Your task to perform on an android device: Open network settings Image 0: 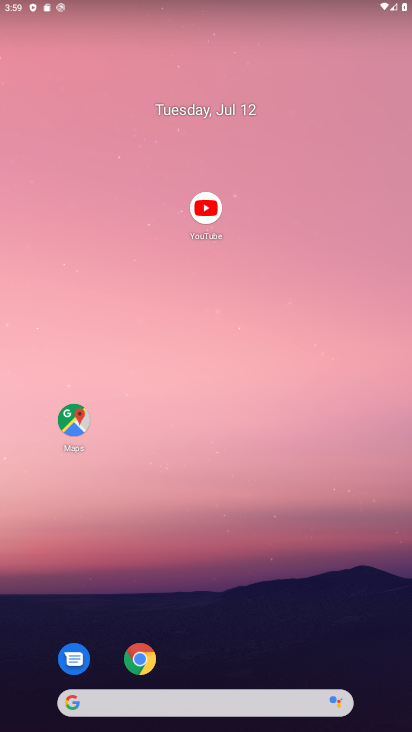
Step 0: drag from (266, 718) to (218, 102)
Your task to perform on an android device: Open network settings Image 1: 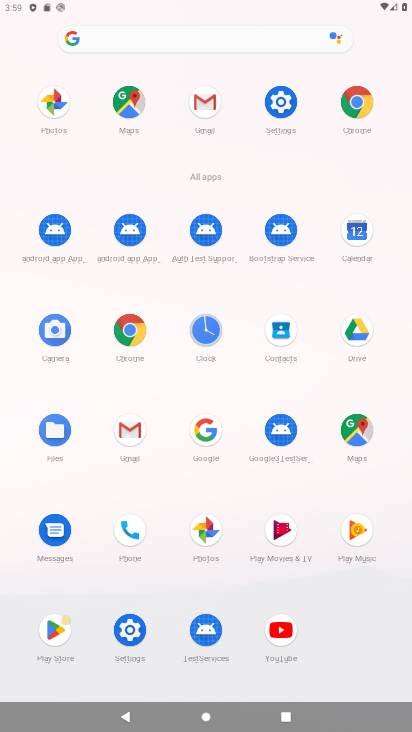
Step 1: click (267, 103)
Your task to perform on an android device: Open network settings Image 2: 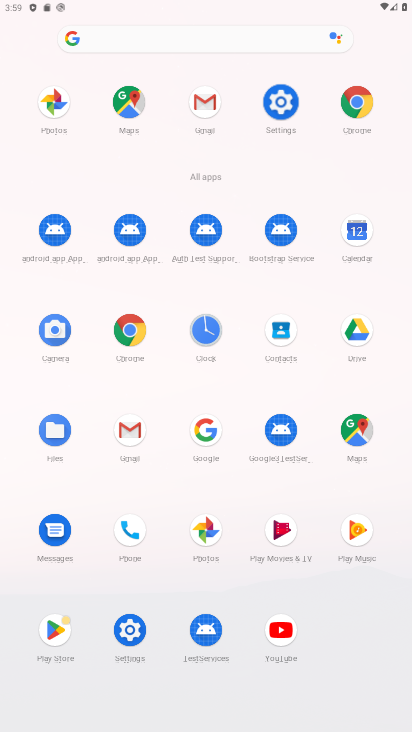
Step 2: click (268, 104)
Your task to perform on an android device: Open network settings Image 3: 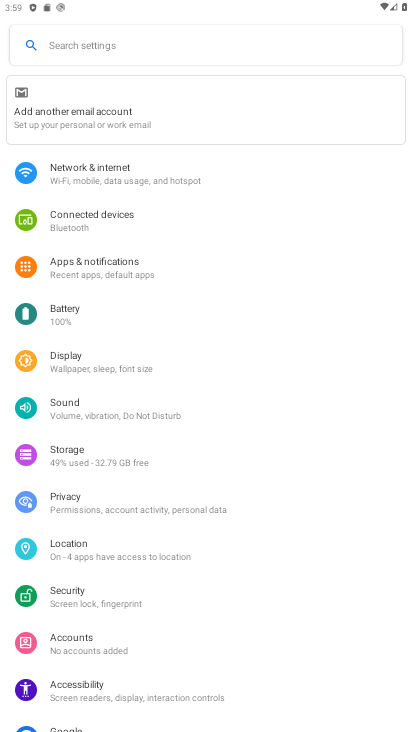
Step 3: click (110, 177)
Your task to perform on an android device: Open network settings Image 4: 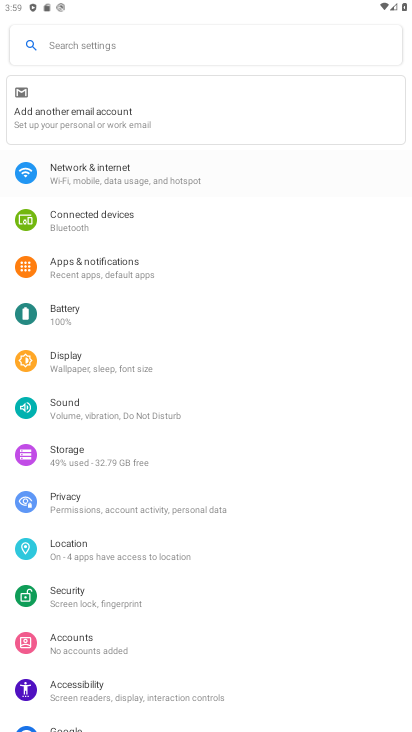
Step 4: click (110, 170)
Your task to perform on an android device: Open network settings Image 5: 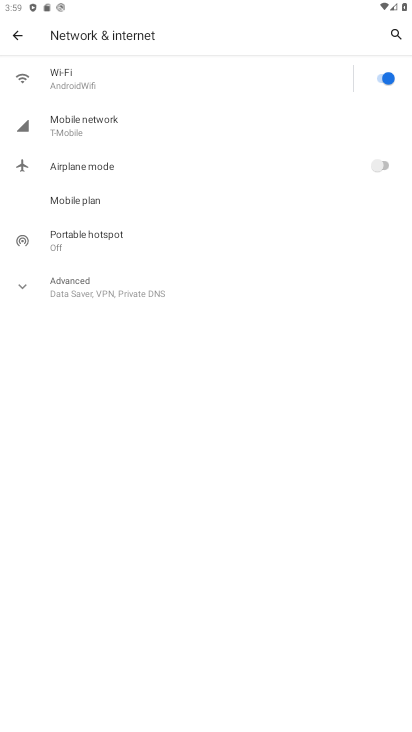
Step 5: click (112, 171)
Your task to perform on an android device: Open network settings Image 6: 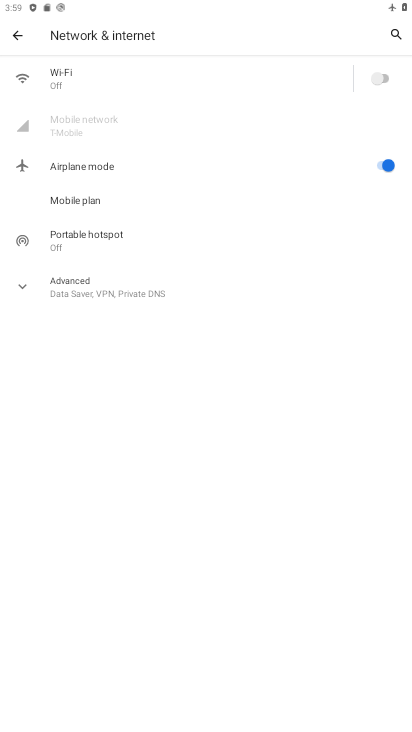
Step 6: click (20, 46)
Your task to perform on an android device: Open network settings Image 7: 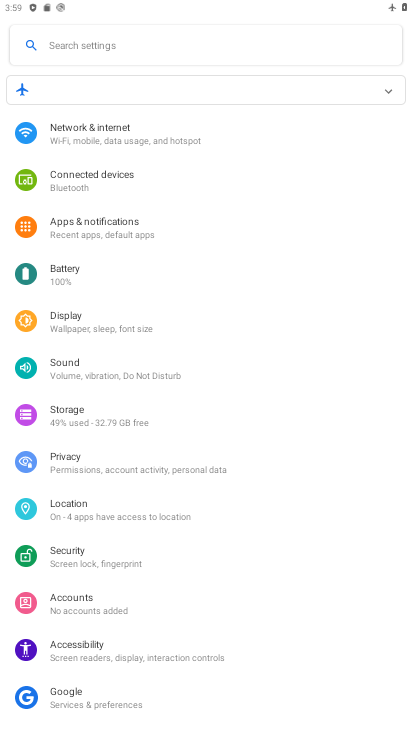
Step 7: click (108, 147)
Your task to perform on an android device: Open network settings Image 8: 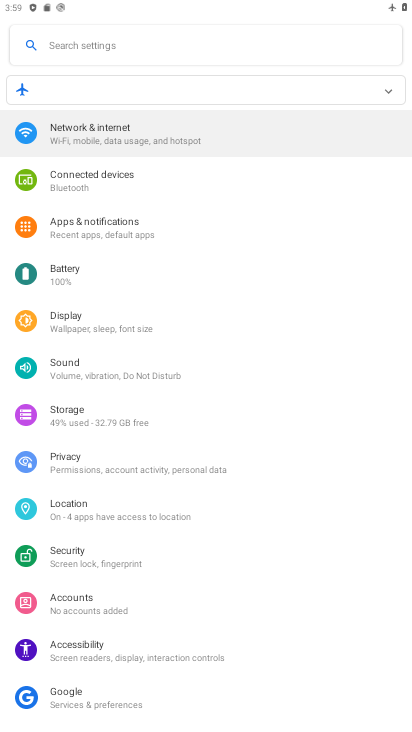
Step 8: click (108, 141)
Your task to perform on an android device: Open network settings Image 9: 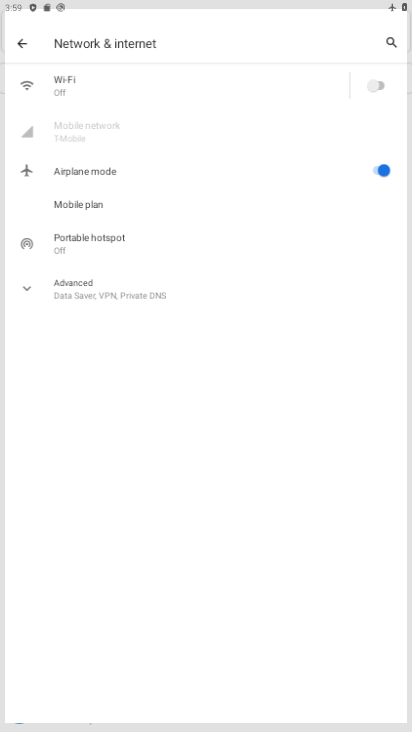
Step 9: click (108, 141)
Your task to perform on an android device: Open network settings Image 10: 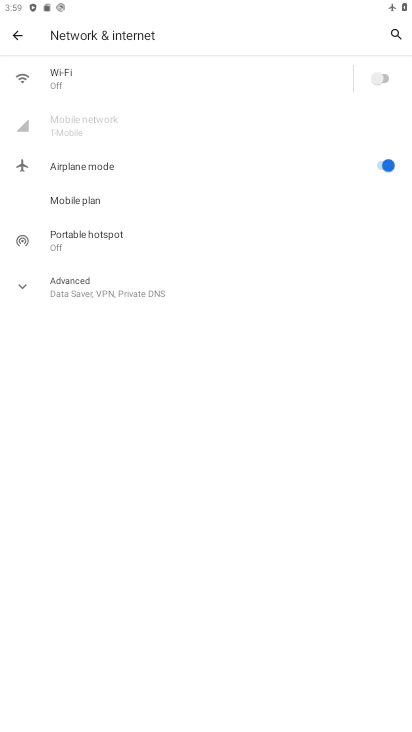
Step 10: click (374, 75)
Your task to perform on an android device: Open network settings Image 11: 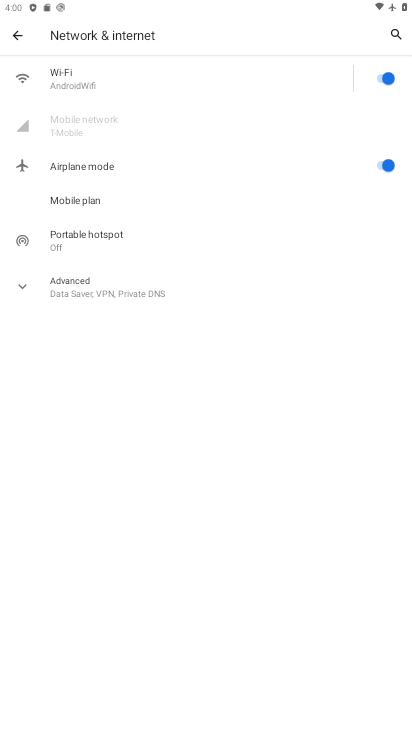
Step 11: task complete